Your task to perform on an android device: Open sound settings Image 0: 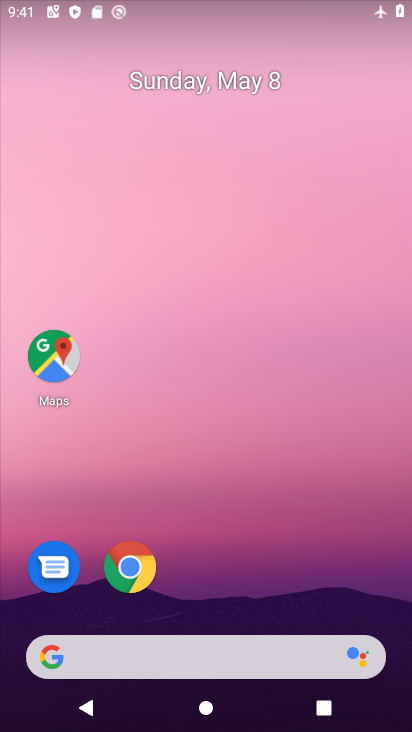
Step 0: drag from (211, 573) to (200, 164)
Your task to perform on an android device: Open sound settings Image 1: 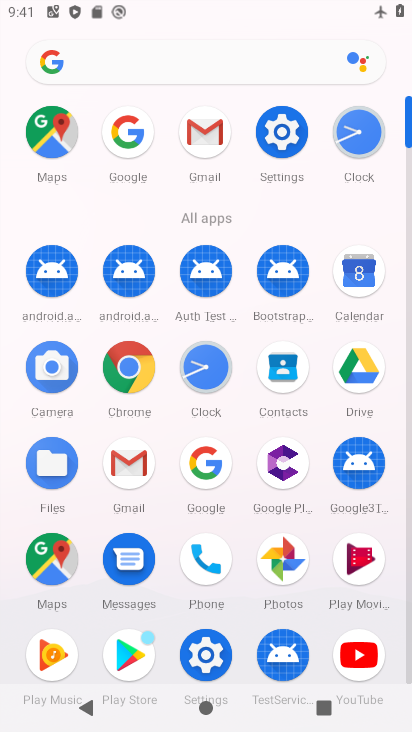
Step 1: click (275, 139)
Your task to perform on an android device: Open sound settings Image 2: 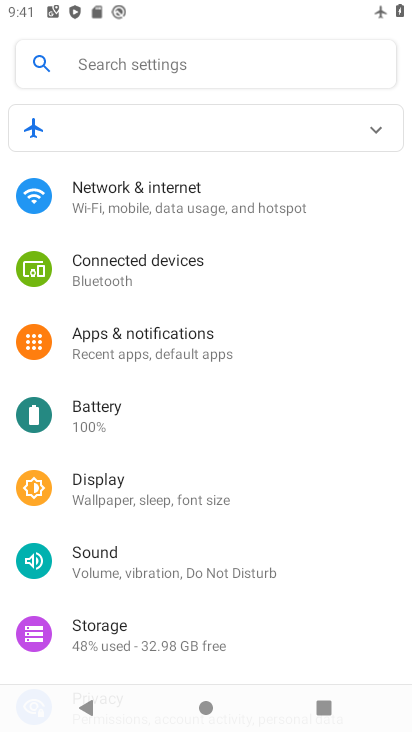
Step 2: click (117, 571)
Your task to perform on an android device: Open sound settings Image 3: 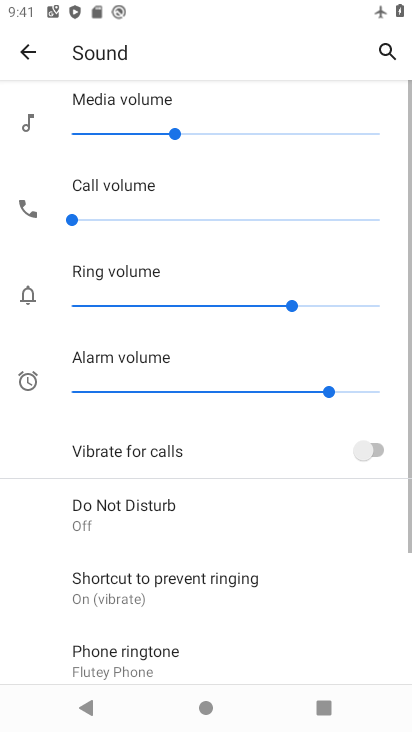
Step 3: drag from (142, 638) to (116, 189)
Your task to perform on an android device: Open sound settings Image 4: 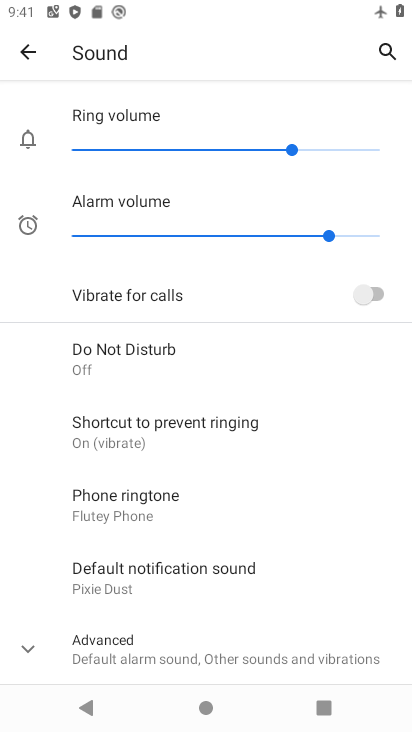
Step 4: click (117, 654)
Your task to perform on an android device: Open sound settings Image 5: 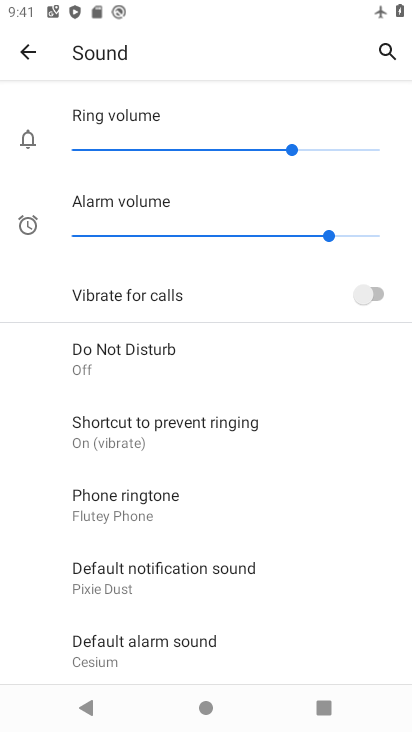
Step 5: task complete